Your task to perform on an android device: open app "Spotify: Music and Podcasts" (install if not already installed) and go to login screen Image 0: 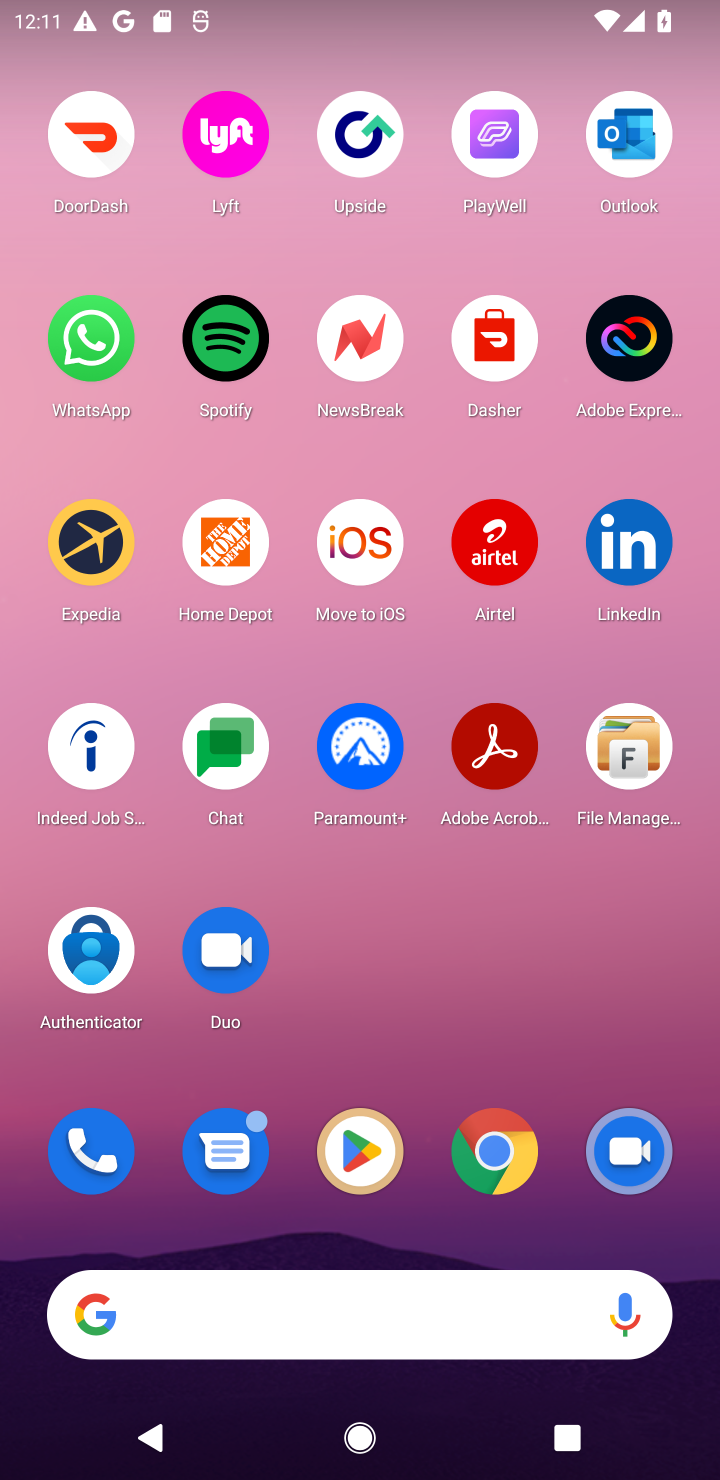
Step 0: click (349, 1129)
Your task to perform on an android device: open app "Spotify: Music and Podcasts" (install if not already installed) and go to login screen Image 1: 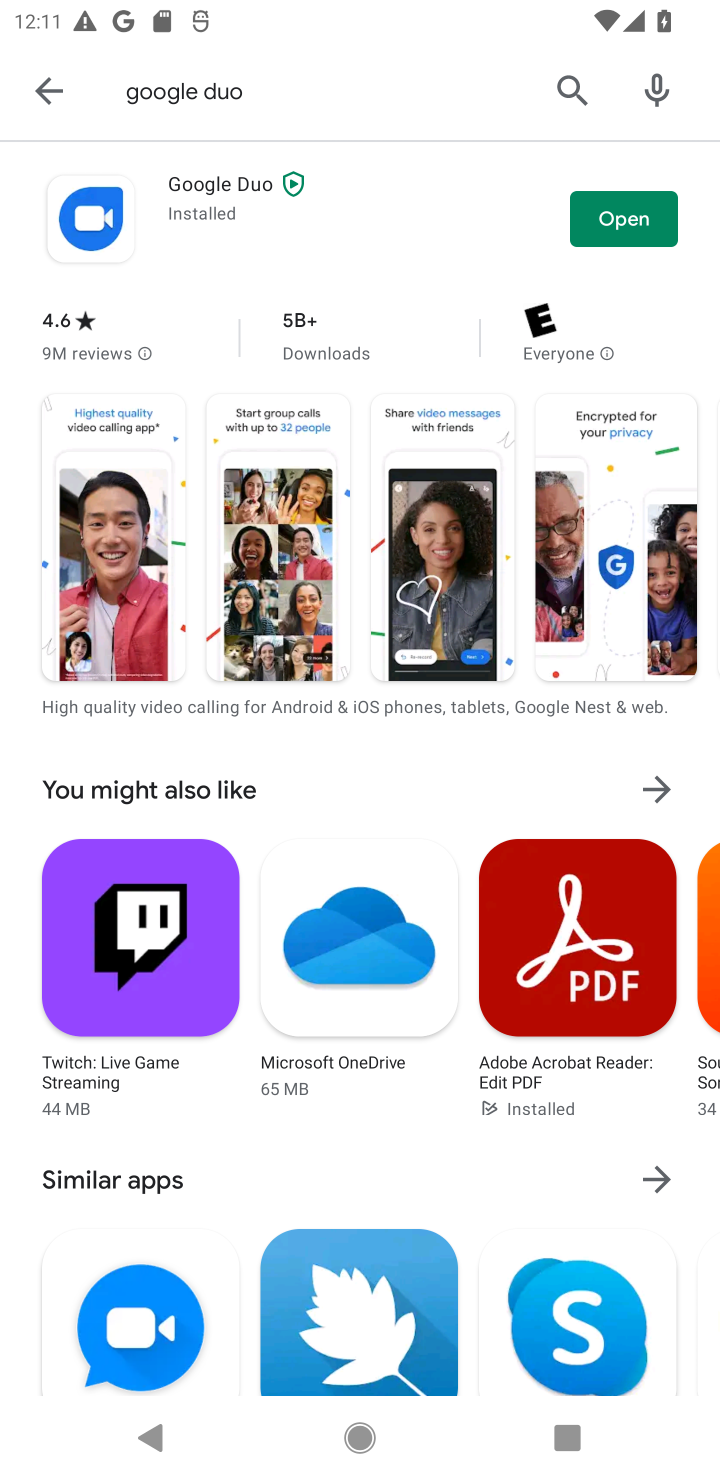
Step 1: click (573, 94)
Your task to perform on an android device: open app "Spotify: Music and Podcasts" (install if not already installed) and go to login screen Image 2: 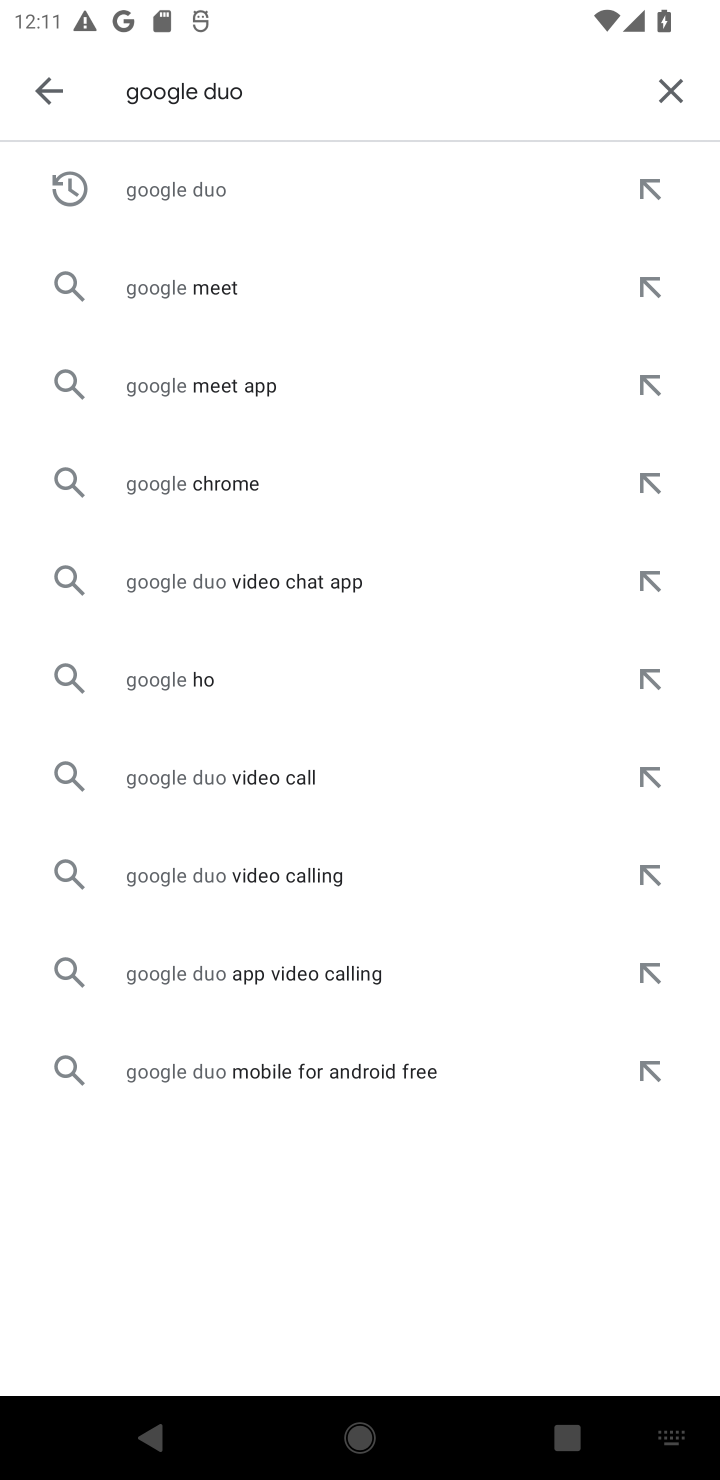
Step 2: click (664, 92)
Your task to perform on an android device: open app "Spotify: Music and Podcasts" (install if not already installed) and go to login screen Image 3: 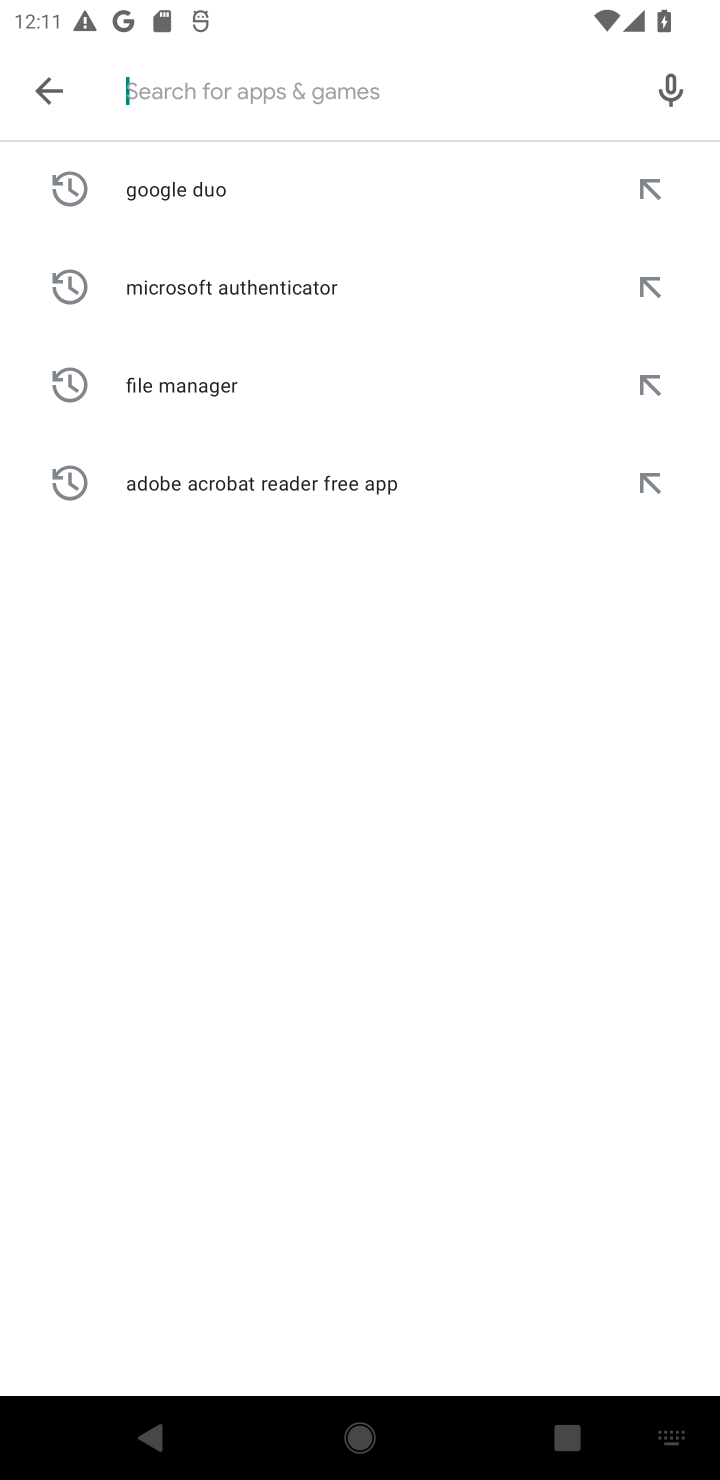
Step 3: type "Spotify"
Your task to perform on an android device: open app "Spotify: Music and Podcasts" (install if not already installed) and go to login screen Image 4: 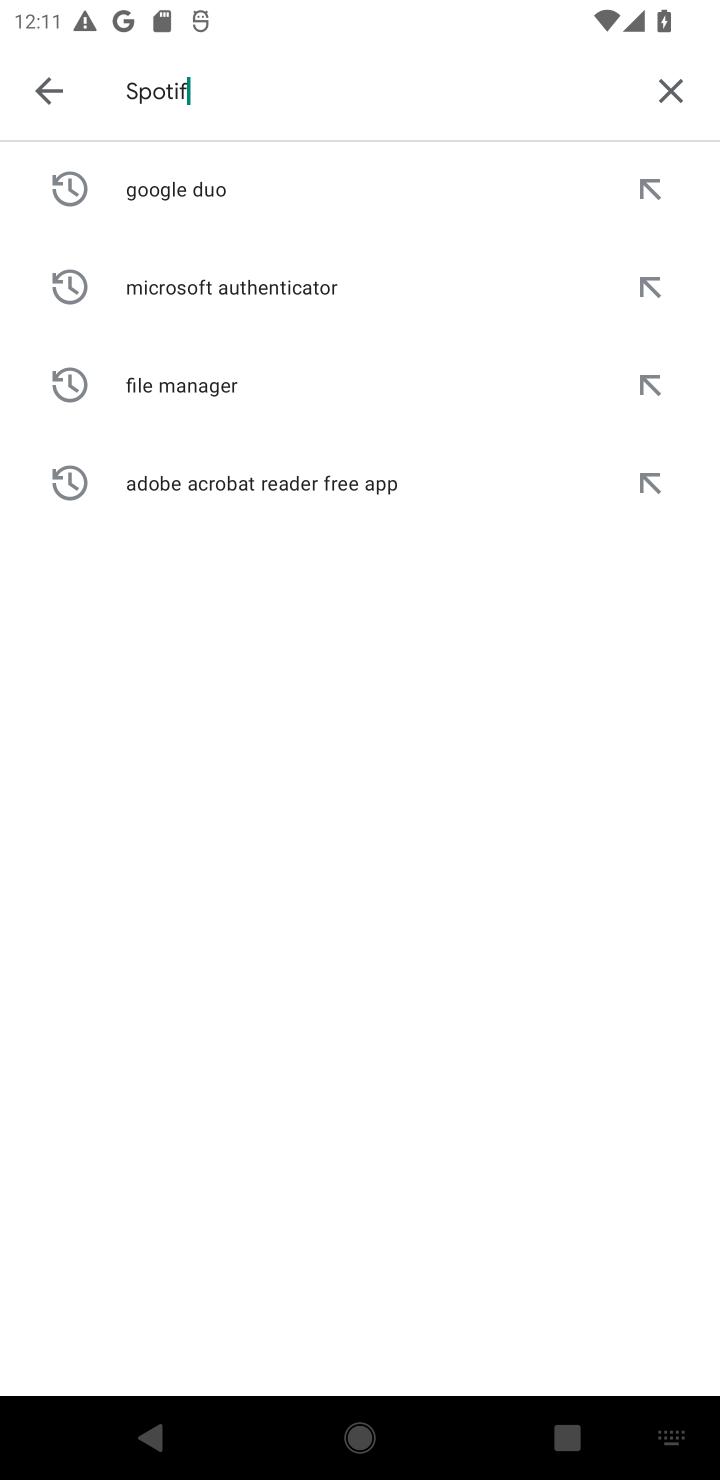
Step 4: type ""
Your task to perform on an android device: open app "Spotify: Music and Podcasts" (install if not already installed) and go to login screen Image 5: 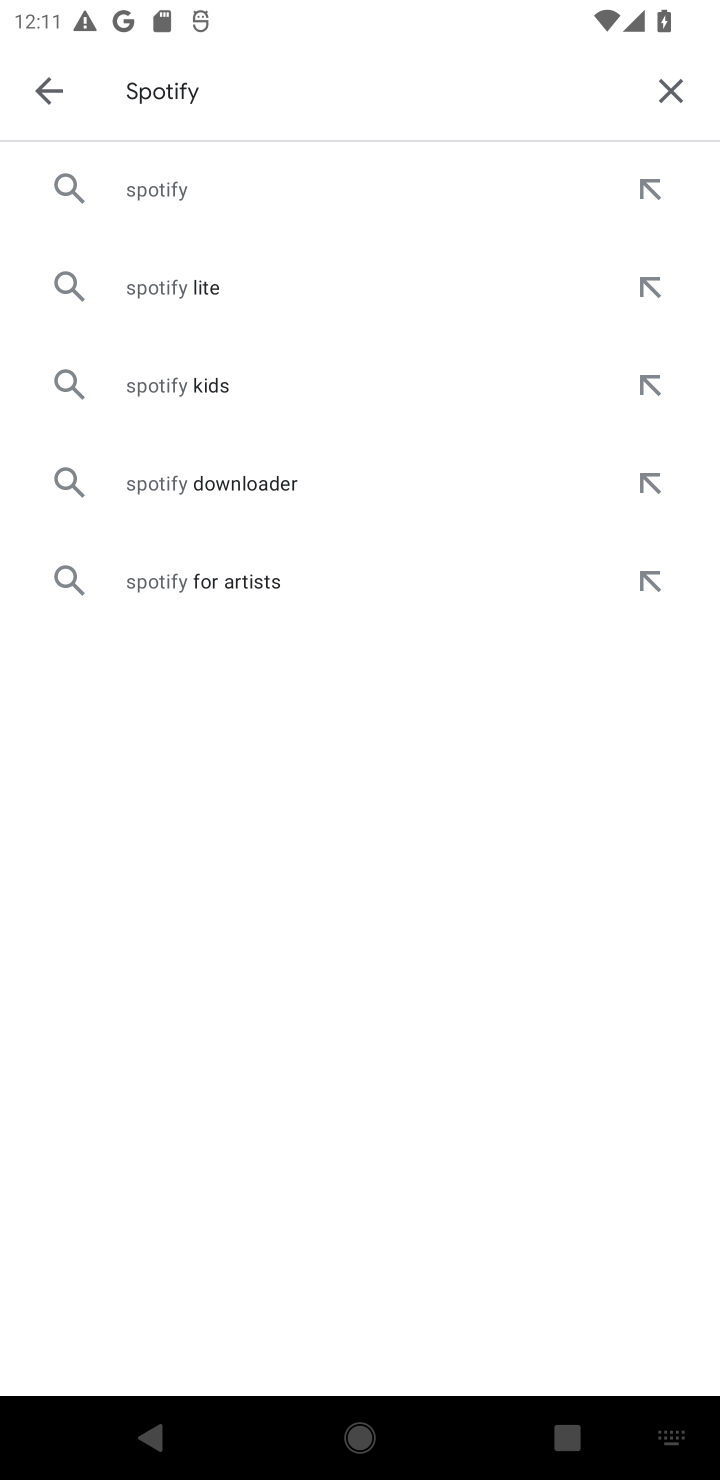
Step 5: click (248, 182)
Your task to perform on an android device: open app "Spotify: Music and Podcasts" (install if not already installed) and go to login screen Image 6: 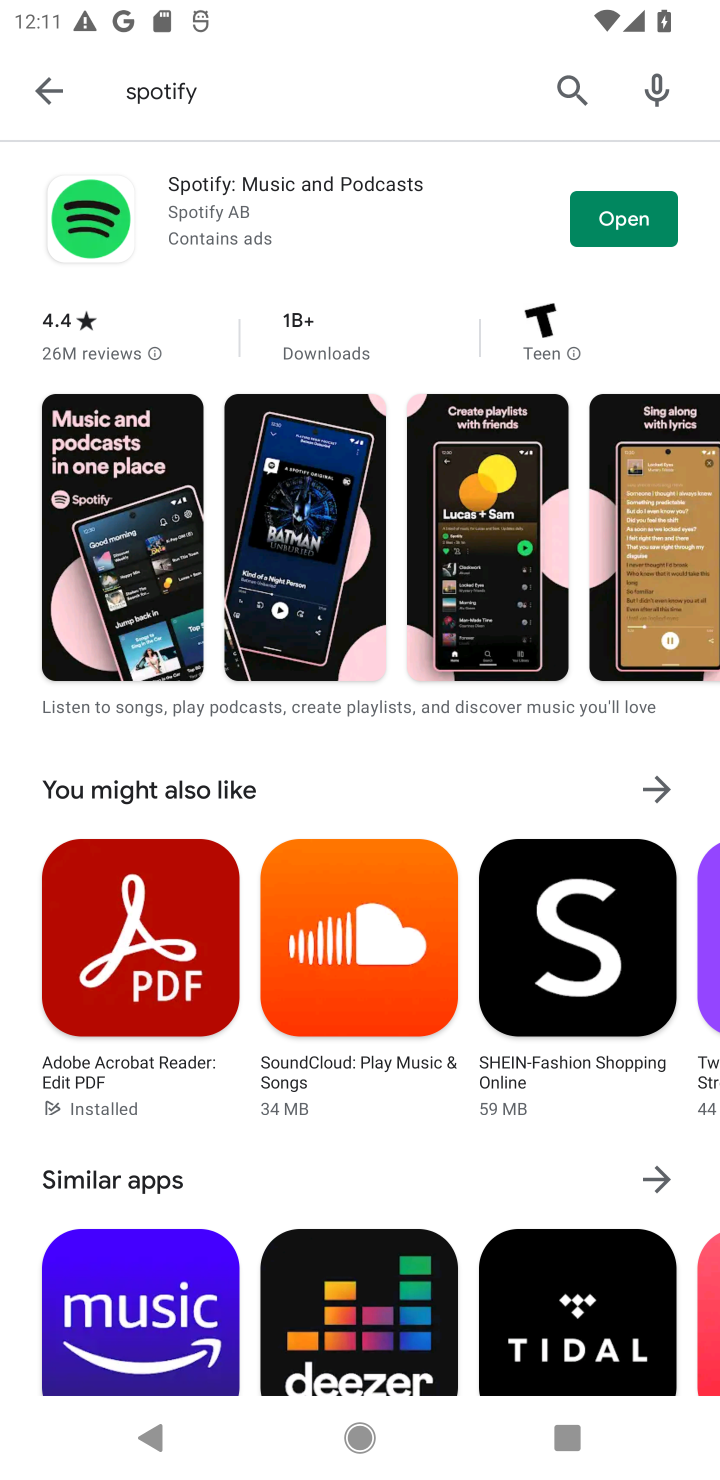
Step 6: click (610, 225)
Your task to perform on an android device: open app "Spotify: Music and Podcasts" (install if not already installed) and go to login screen Image 7: 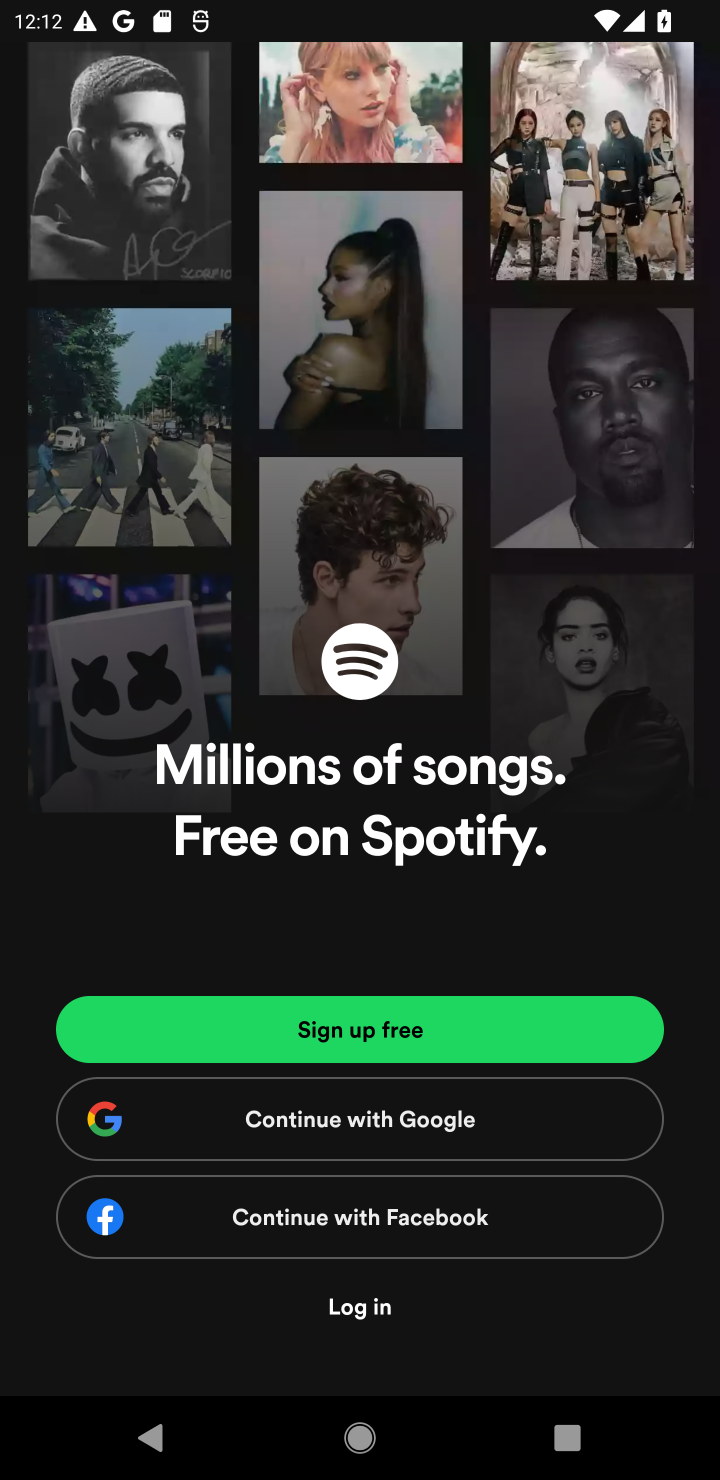
Step 7: task complete